Your task to perform on an android device: turn on wifi Image 0: 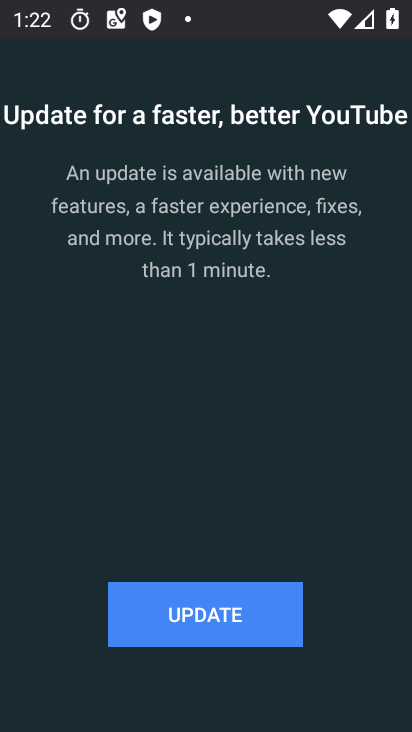
Step 0: drag from (302, 10) to (243, 609)
Your task to perform on an android device: turn on wifi Image 1: 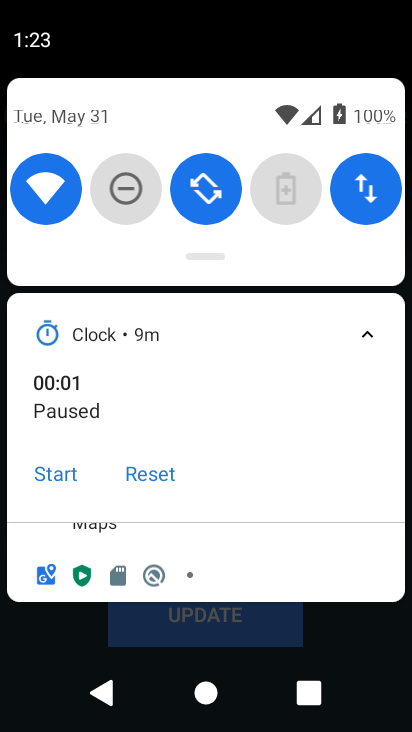
Step 1: task complete